Your task to perform on an android device: What's the weather today? Image 0: 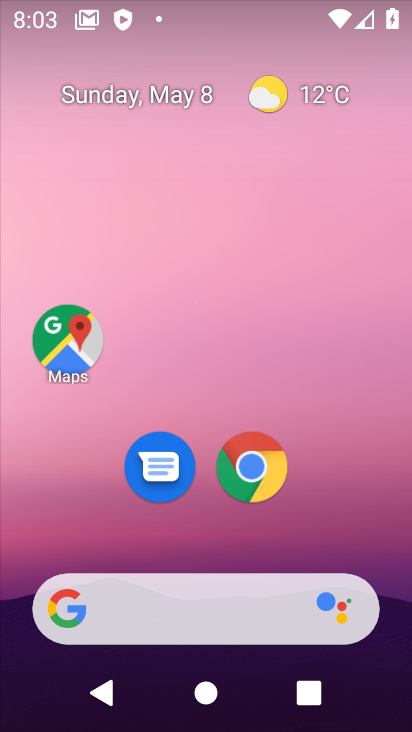
Step 0: click (268, 89)
Your task to perform on an android device: What's the weather today? Image 1: 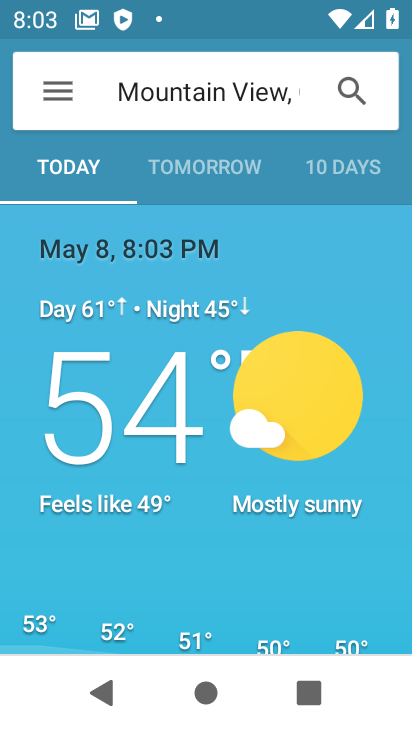
Step 1: task complete